Your task to perform on an android device: Open the calendar app, open the side menu, and click the "Day" option Image 0: 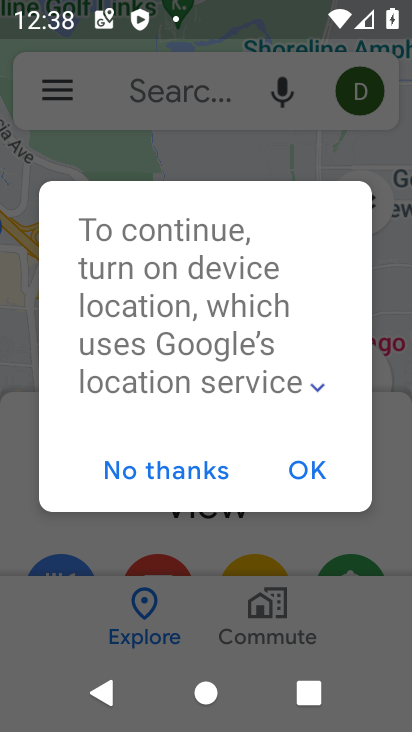
Step 0: press home button
Your task to perform on an android device: Open the calendar app, open the side menu, and click the "Day" option Image 1: 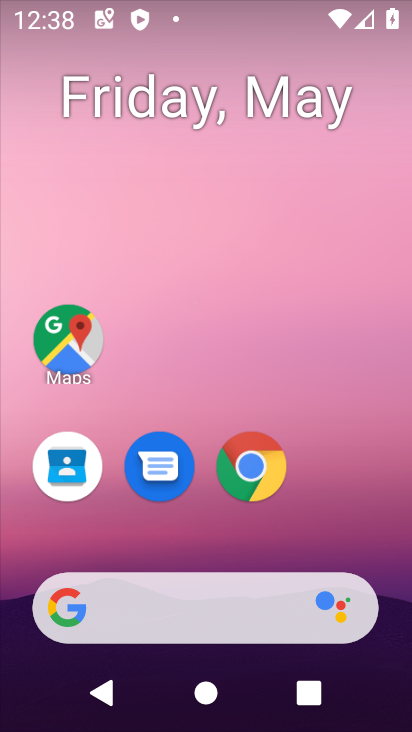
Step 1: drag from (236, 530) to (332, 487)
Your task to perform on an android device: Open the calendar app, open the side menu, and click the "Day" option Image 2: 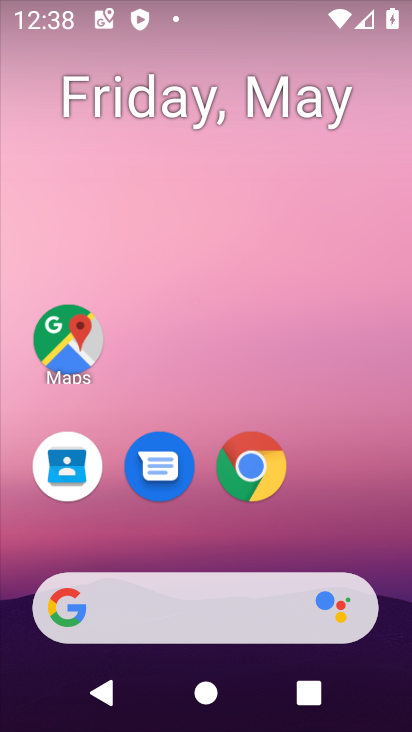
Step 2: drag from (216, 559) to (245, 125)
Your task to perform on an android device: Open the calendar app, open the side menu, and click the "Day" option Image 3: 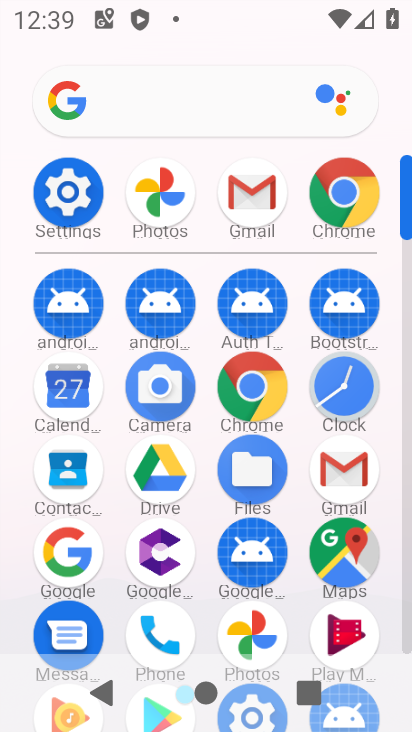
Step 3: click (66, 411)
Your task to perform on an android device: Open the calendar app, open the side menu, and click the "Day" option Image 4: 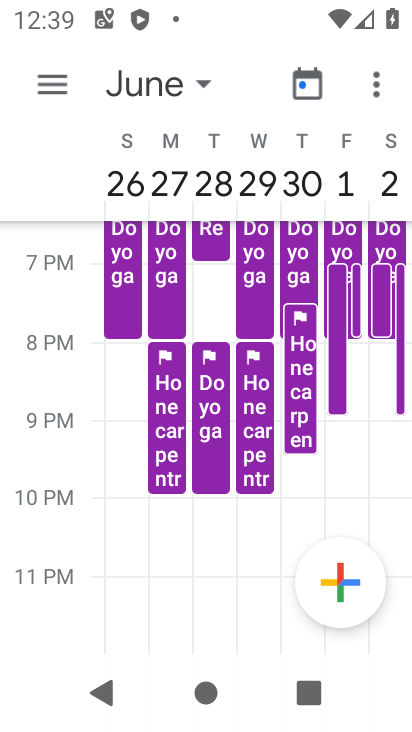
Step 4: click (59, 75)
Your task to perform on an android device: Open the calendar app, open the side menu, and click the "Day" option Image 5: 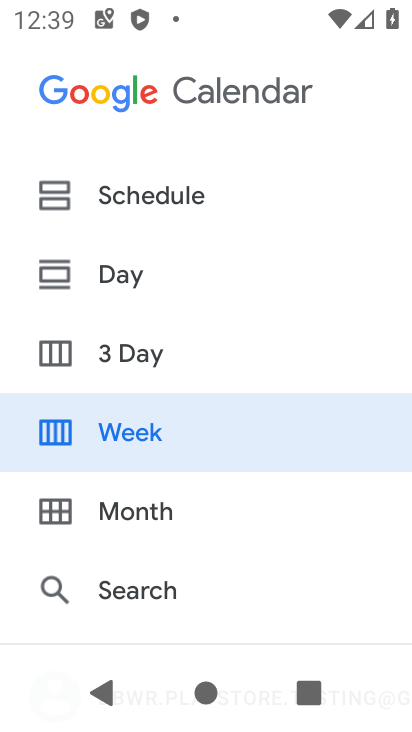
Step 5: click (139, 277)
Your task to perform on an android device: Open the calendar app, open the side menu, and click the "Day" option Image 6: 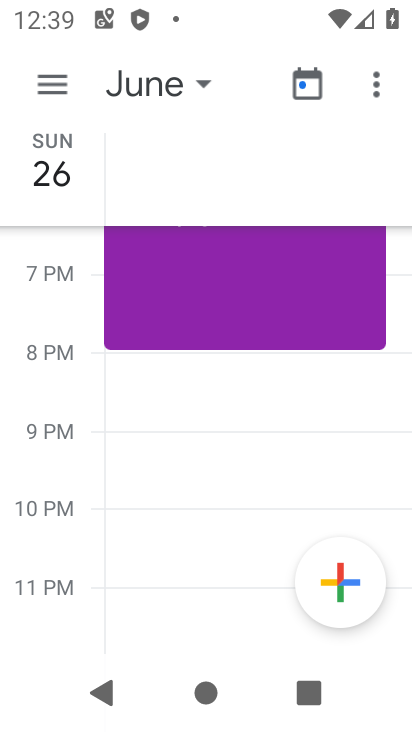
Step 6: task complete